Your task to perform on an android device: Open Wikipedia Image 0: 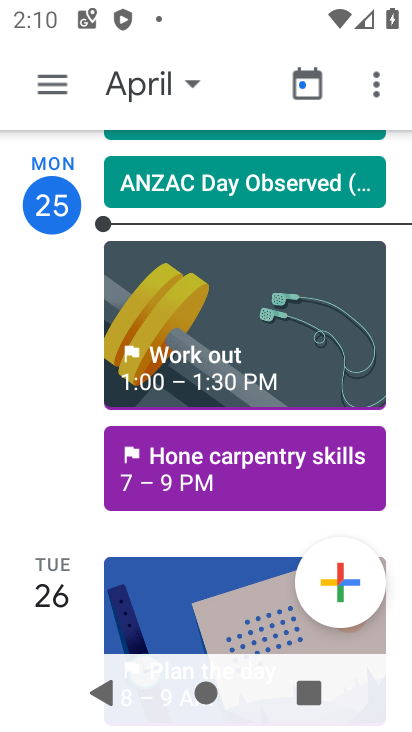
Step 0: press home button
Your task to perform on an android device: Open Wikipedia Image 1: 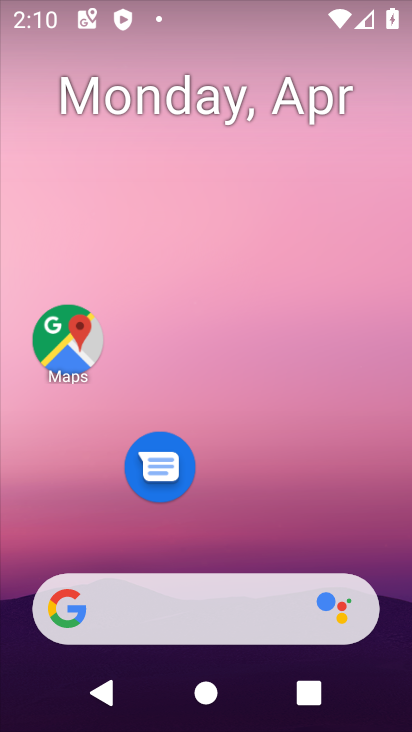
Step 1: drag from (293, 546) to (290, 51)
Your task to perform on an android device: Open Wikipedia Image 2: 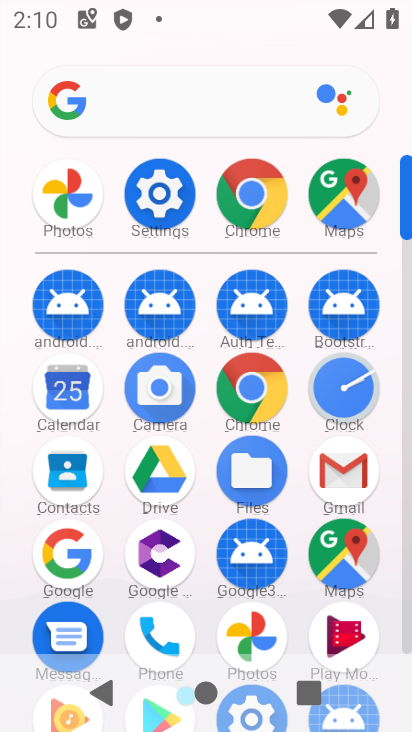
Step 2: click (249, 211)
Your task to perform on an android device: Open Wikipedia Image 3: 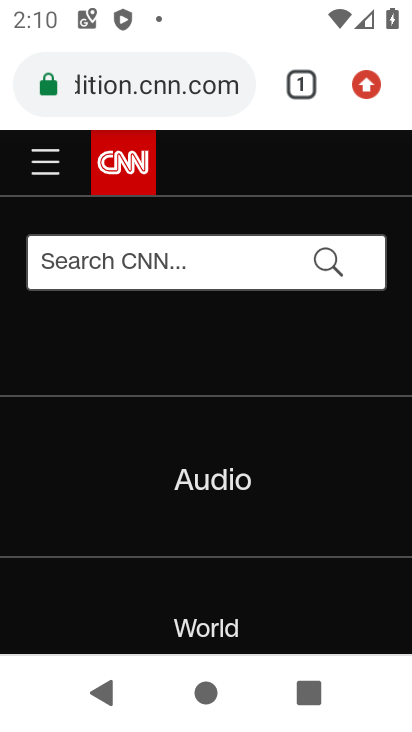
Step 3: click (197, 94)
Your task to perform on an android device: Open Wikipedia Image 4: 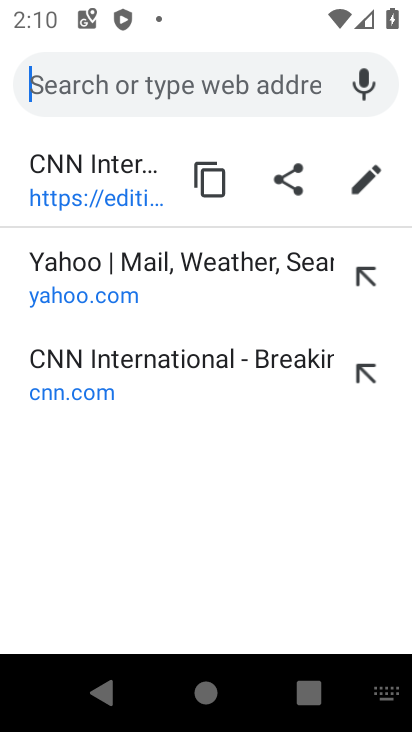
Step 4: type "wikipedia"
Your task to perform on an android device: Open Wikipedia Image 5: 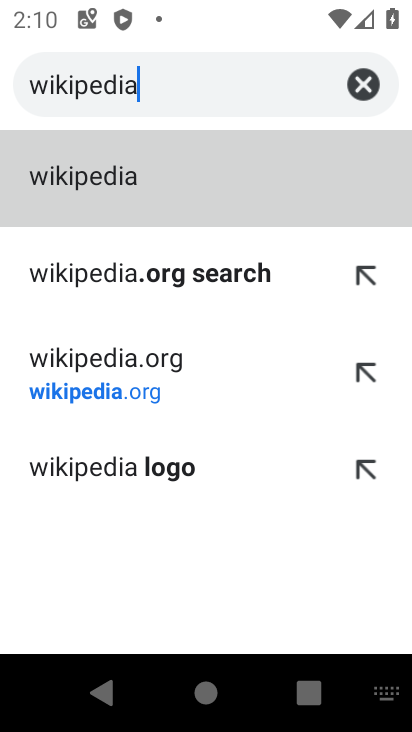
Step 5: click (83, 193)
Your task to perform on an android device: Open Wikipedia Image 6: 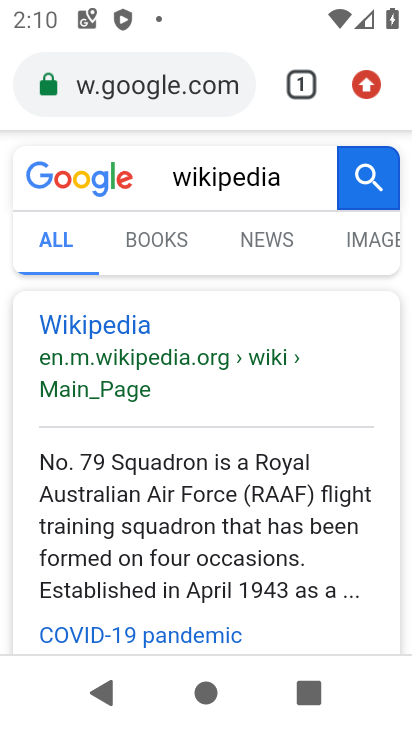
Step 6: click (102, 313)
Your task to perform on an android device: Open Wikipedia Image 7: 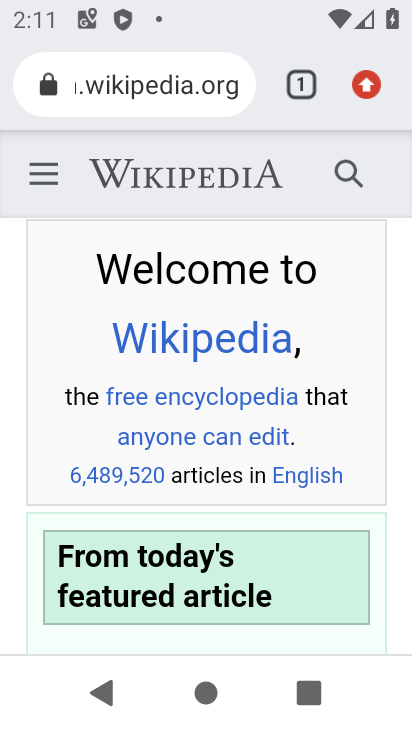
Step 7: task complete